Your task to perform on an android device: search for starred emails in the gmail app Image 0: 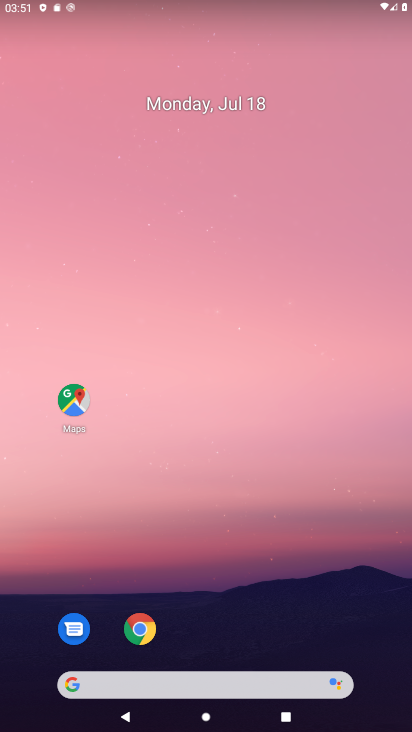
Step 0: drag from (379, 693) to (246, 111)
Your task to perform on an android device: search for starred emails in the gmail app Image 1: 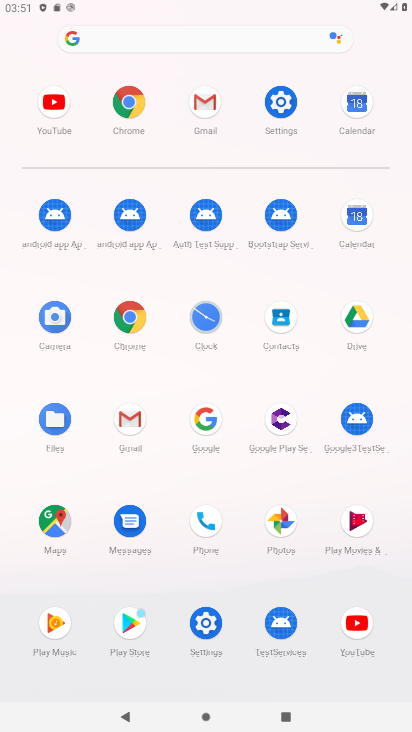
Step 1: click (128, 426)
Your task to perform on an android device: search for starred emails in the gmail app Image 2: 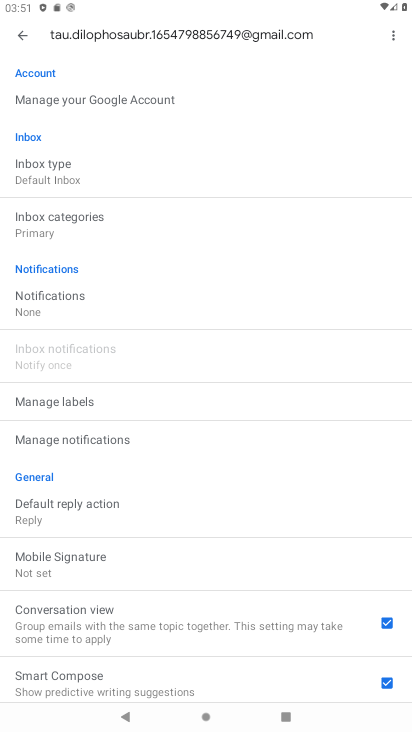
Step 2: task complete